Your task to perform on an android device: Empty the shopping cart on costco.com. Search for "usb-b" on costco.com, select the first entry, add it to the cart, then select checkout. Image 0: 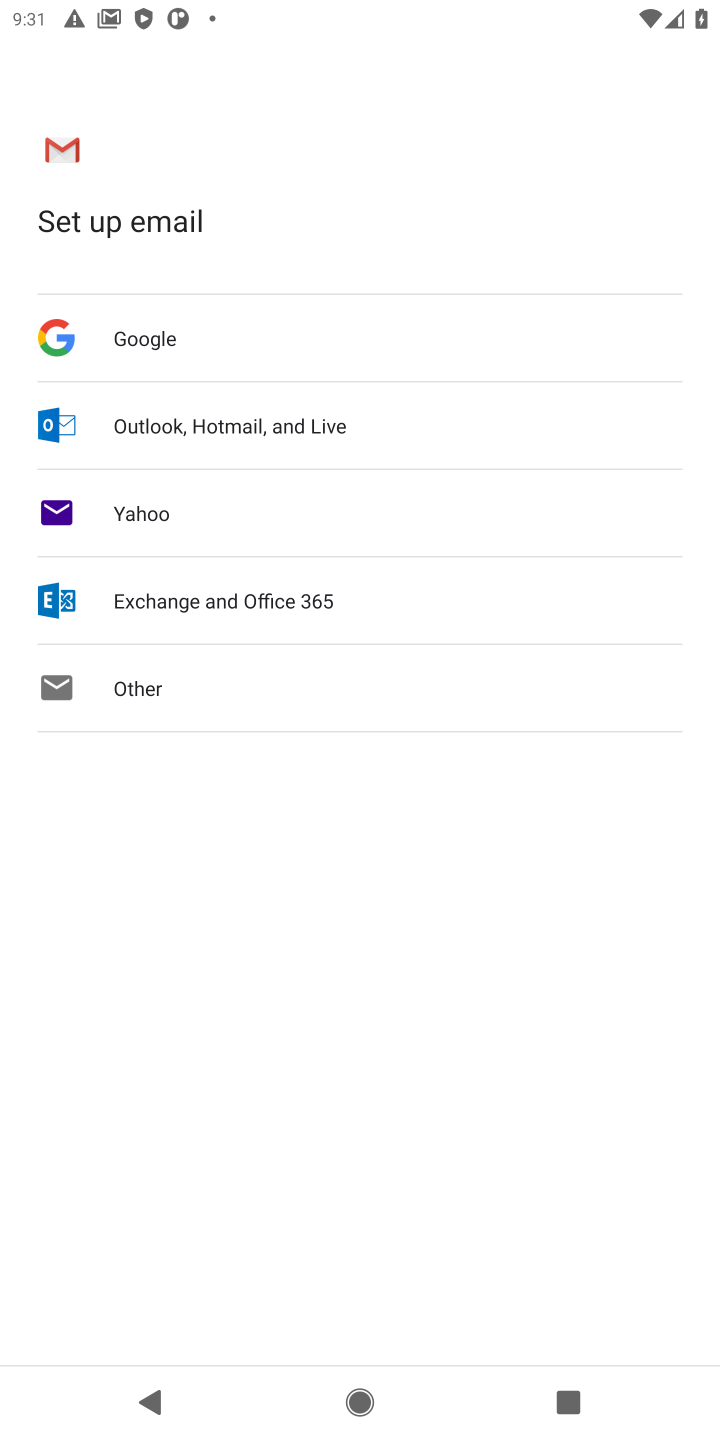
Step 0: press home button
Your task to perform on an android device: Empty the shopping cart on costco.com. Search for "usb-b" on costco.com, select the first entry, add it to the cart, then select checkout. Image 1: 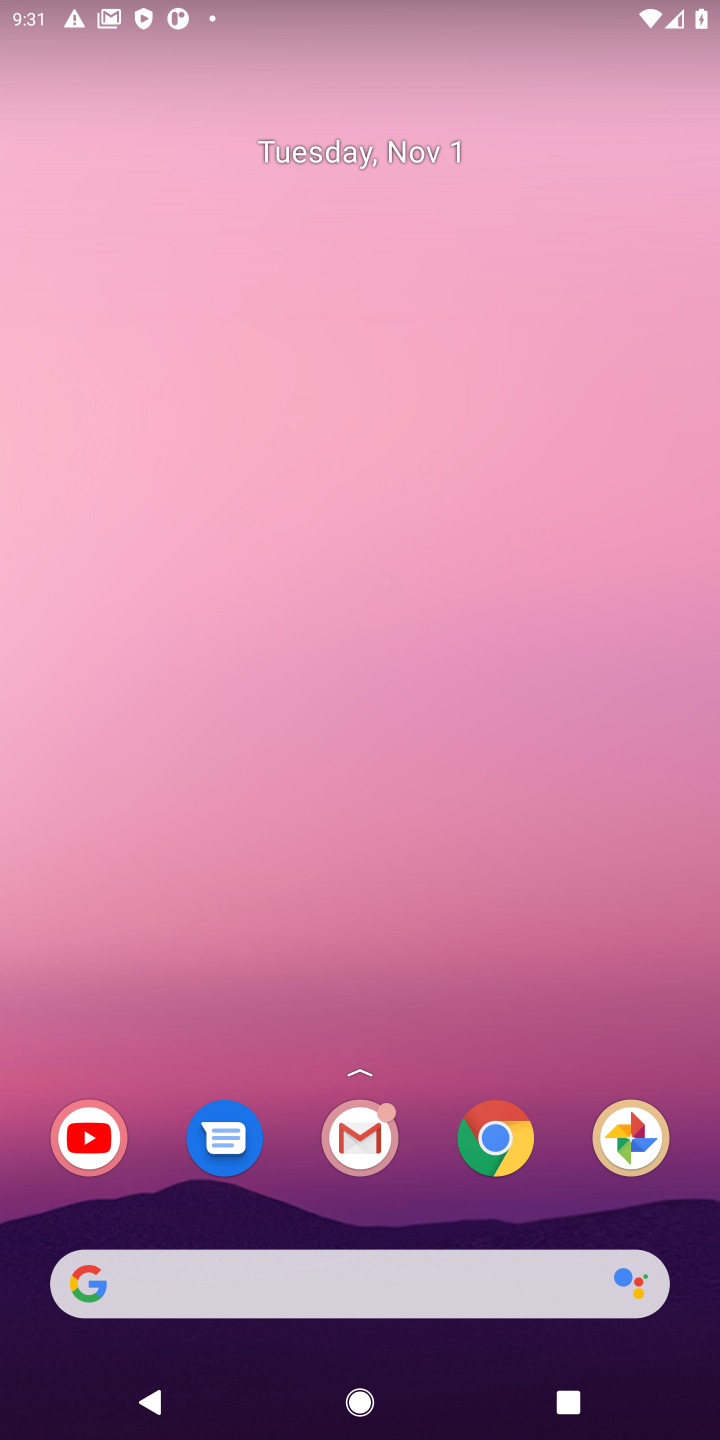
Step 1: click (499, 1144)
Your task to perform on an android device: Empty the shopping cart on costco.com. Search for "usb-b" on costco.com, select the first entry, add it to the cart, then select checkout. Image 2: 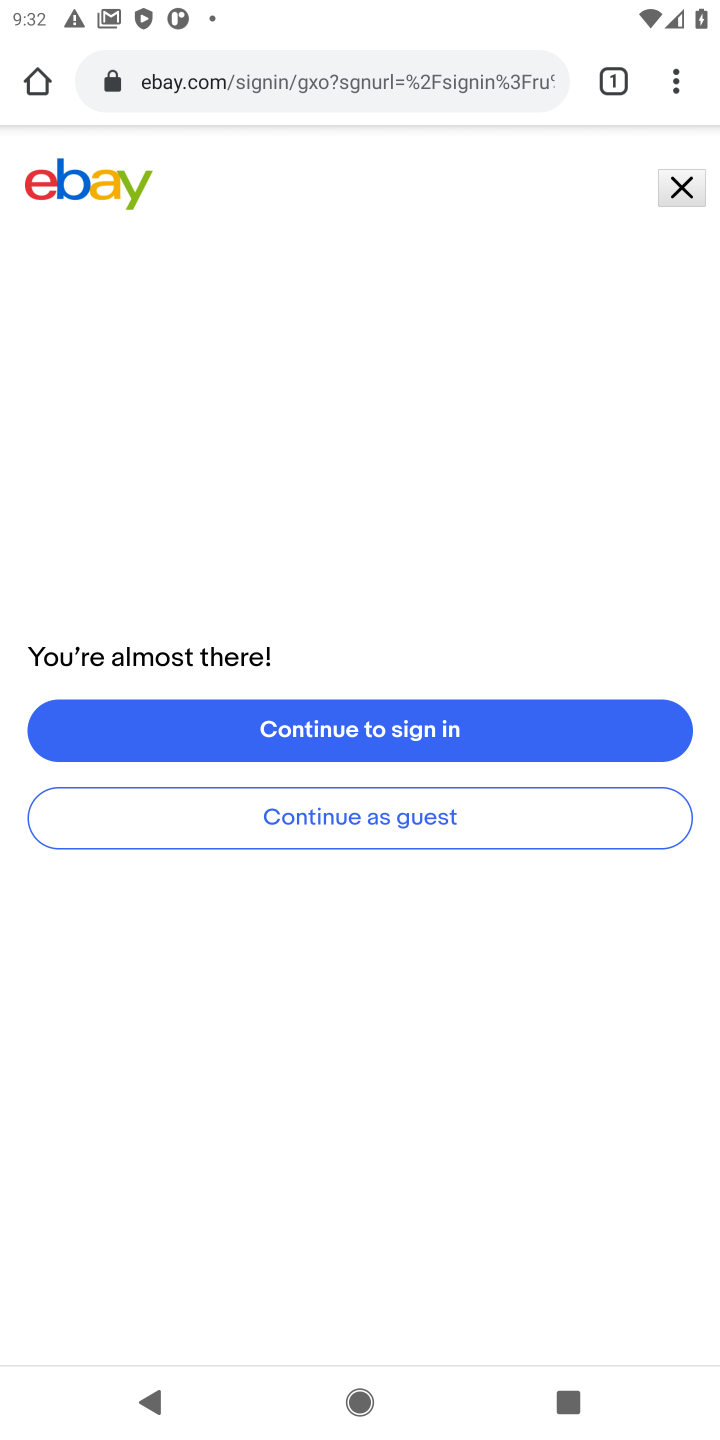
Step 2: click (274, 87)
Your task to perform on an android device: Empty the shopping cart on costco.com. Search for "usb-b" on costco.com, select the first entry, add it to the cart, then select checkout. Image 3: 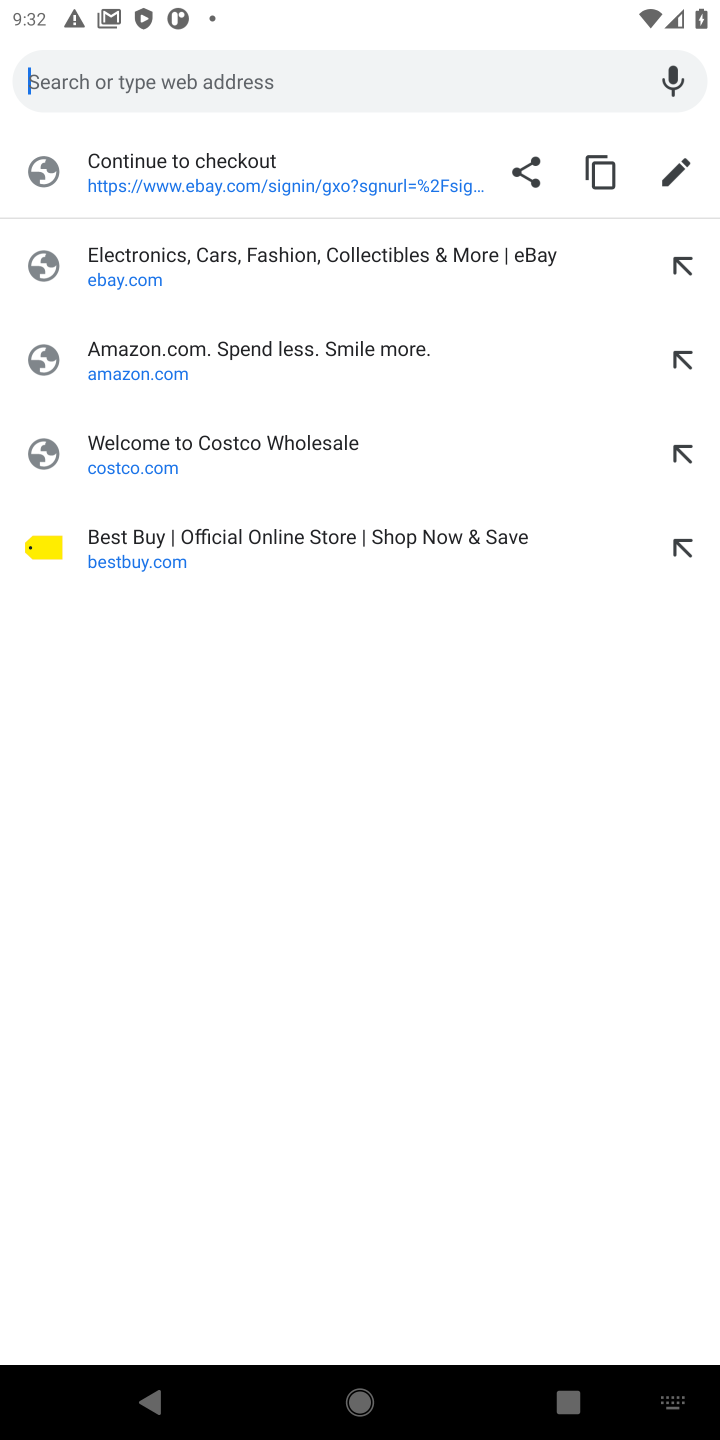
Step 3: type "costco.com"
Your task to perform on an android device: Empty the shopping cart on costco.com. Search for "usb-b" on costco.com, select the first entry, add it to the cart, then select checkout. Image 4: 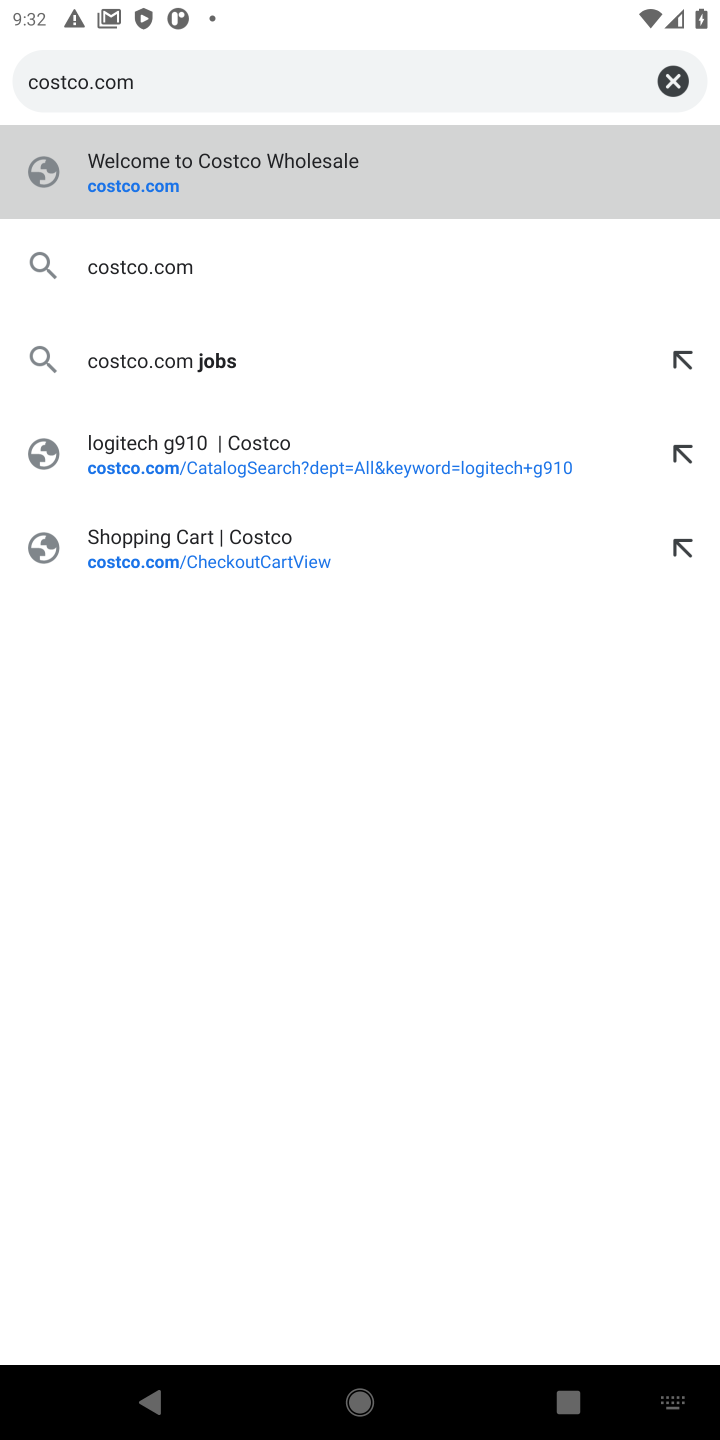
Step 4: click (123, 198)
Your task to perform on an android device: Empty the shopping cart on costco.com. Search for "usb-b" on costco.com, select the first entry, add it to the cart, then select checkout. Image 5: 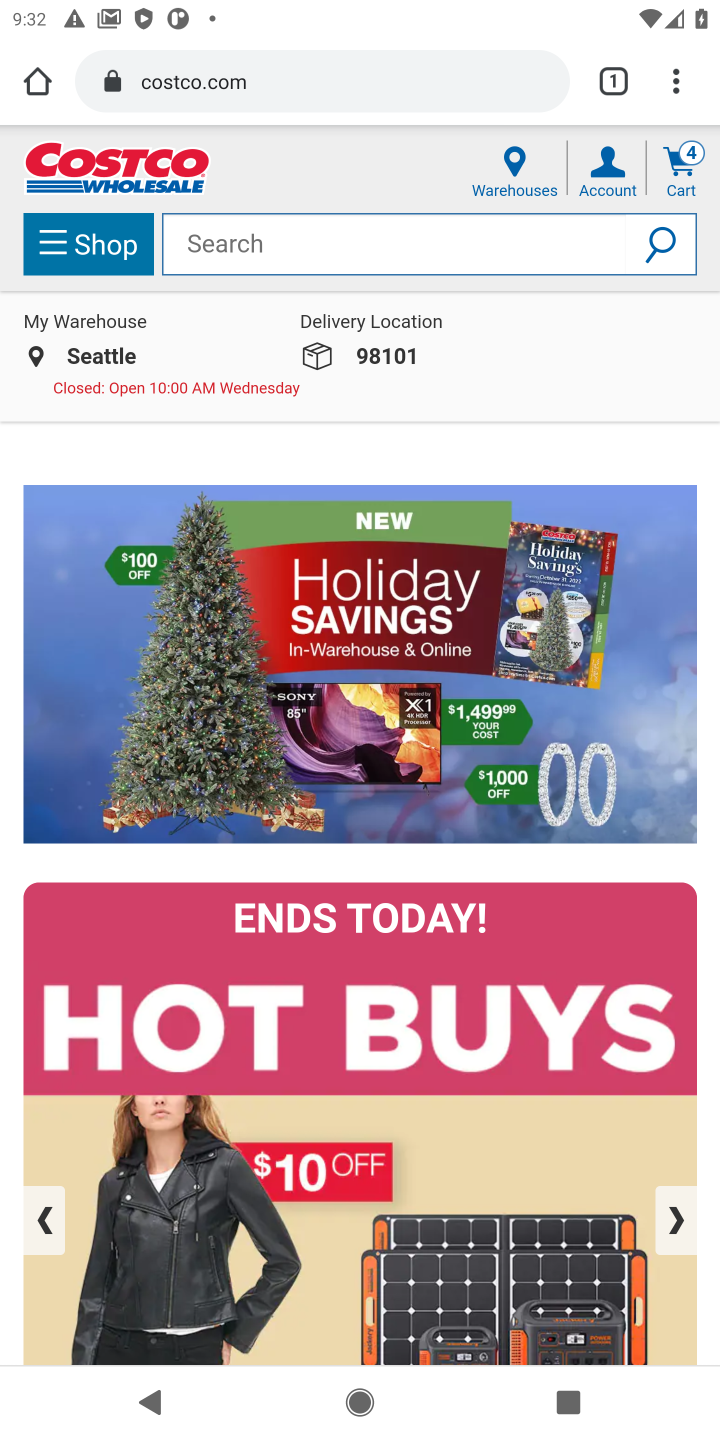
Step 5: click (680, 168)
Your task to perform on an android device: Empty the shopping cart on costco.com. Search for "usb-b" on costco.com, select the first entry, add it to the cart, then select checkout. Image 6: 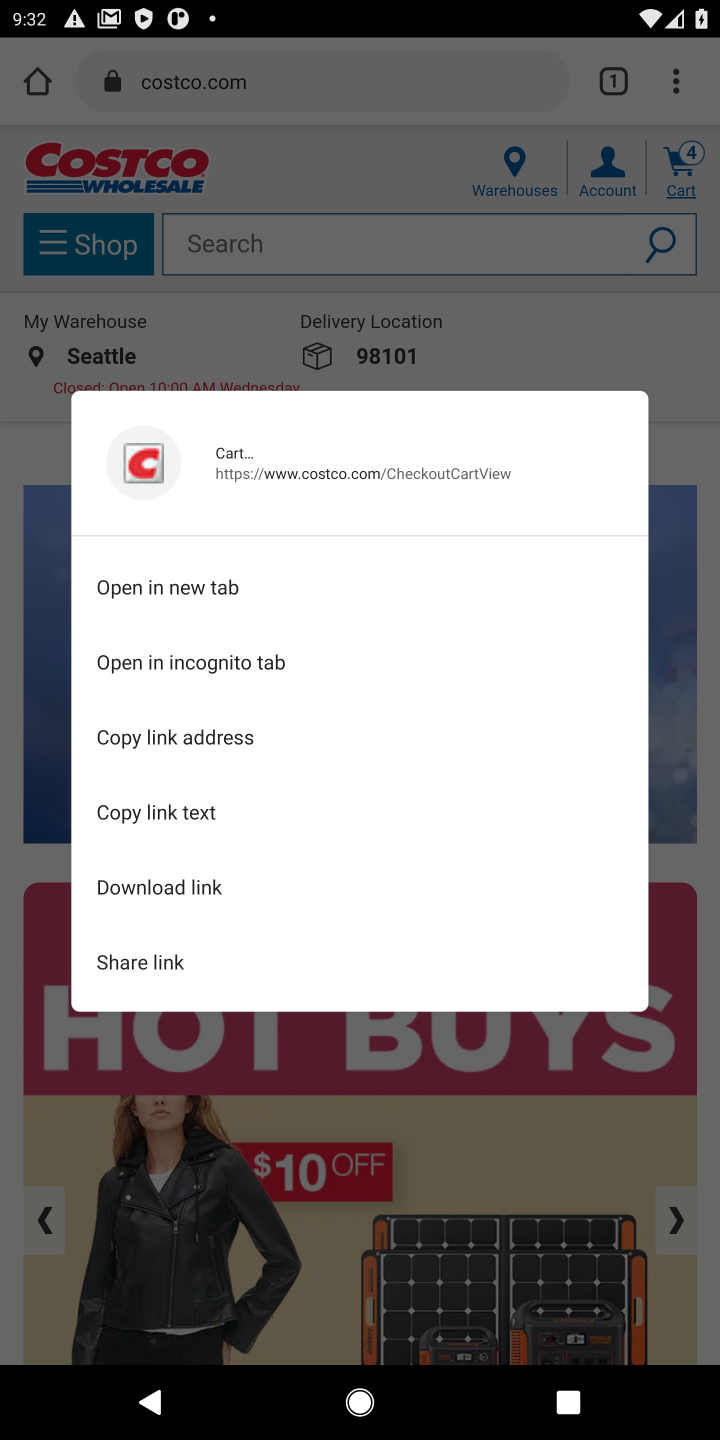
Step 6: click (680, 168)
Your task to perform on an android device: Empty the shopping cart on costco.com. Search for "usb-b" on costco.com, select the first entry, add it to the cart, then select checkout. Image 7: 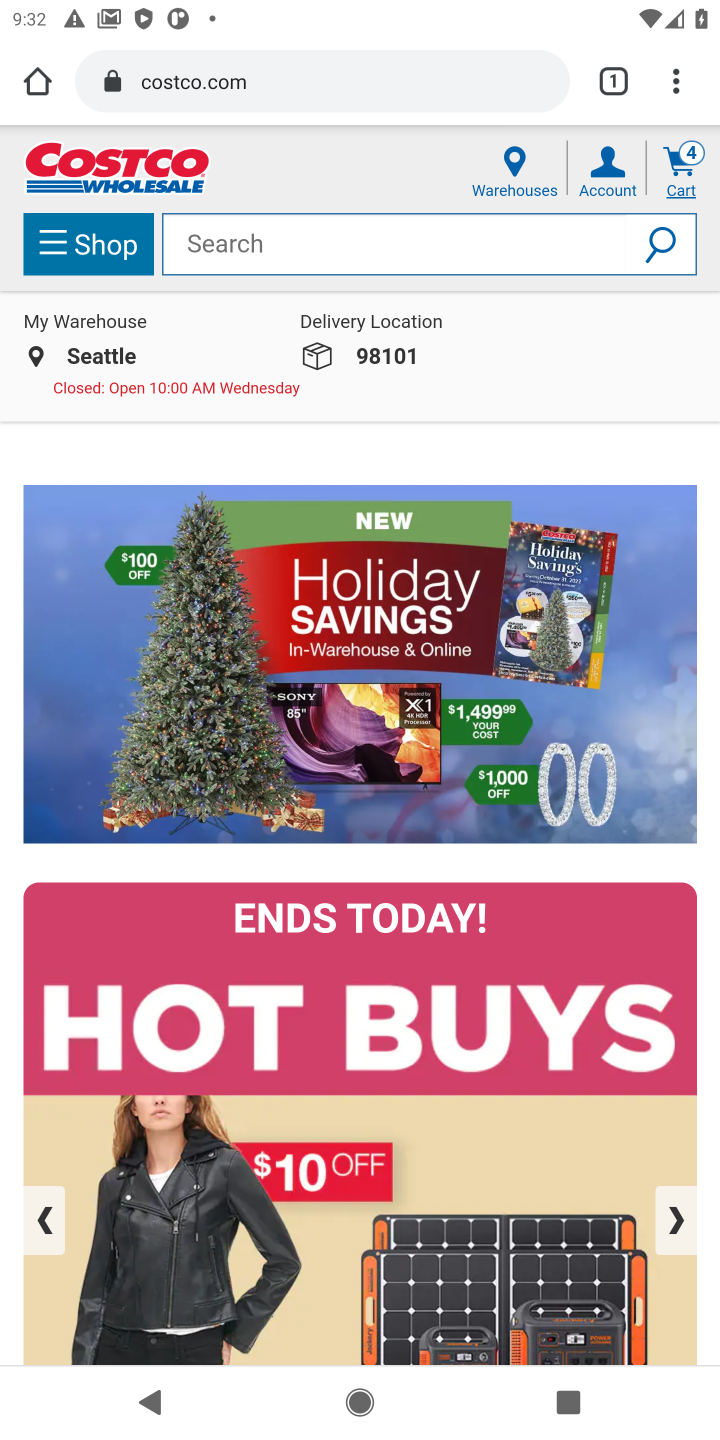
Step 7: click (684, 168)
Your task to perform on an android device: Empty the shopping cart on costco.com. Search for "usb-b" on costco.com, select the first entry, add it to the cart, then select checkout. Image 8: 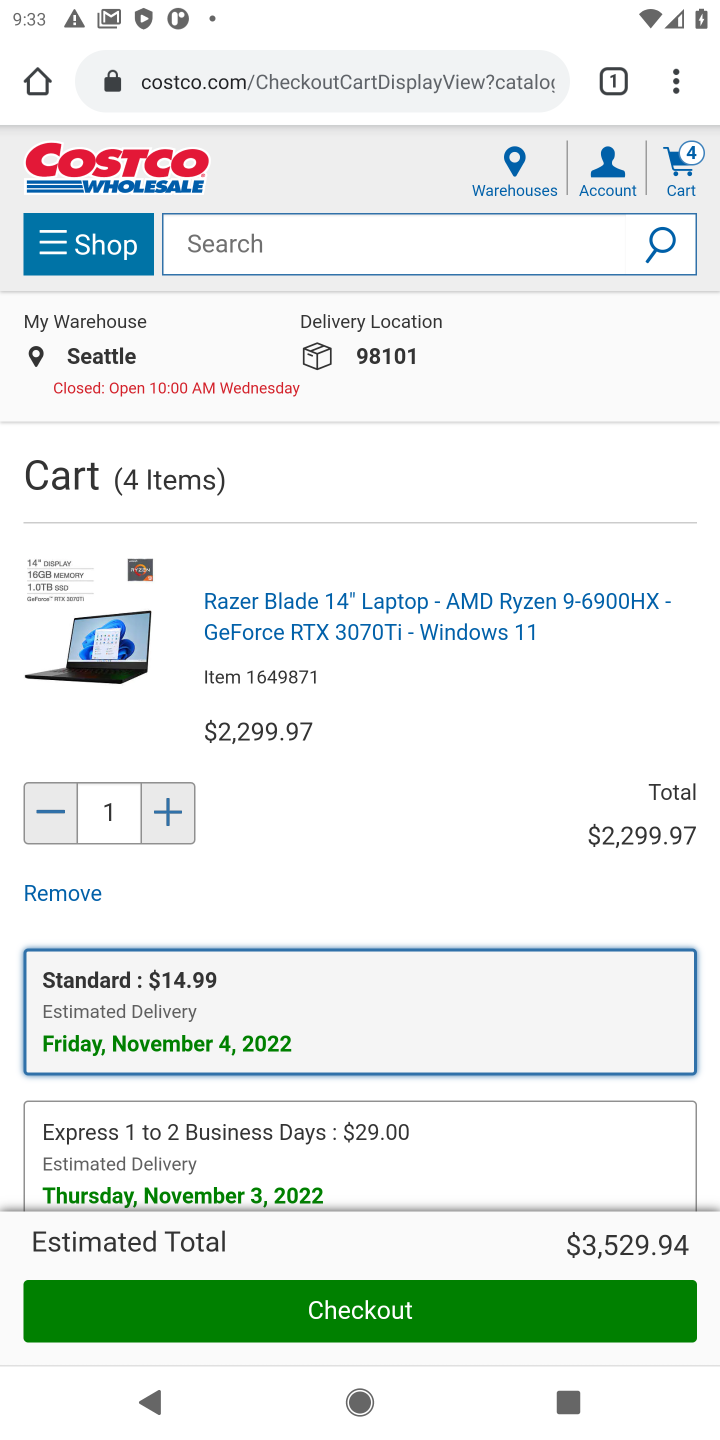
Step 8: click (93, 899)
Your task to perform on an android device: Empty the shopping cart on costco.com. Search for "usb-b" on costco.com, select the first entry, add it to the cart, then select checkout. Image 9: 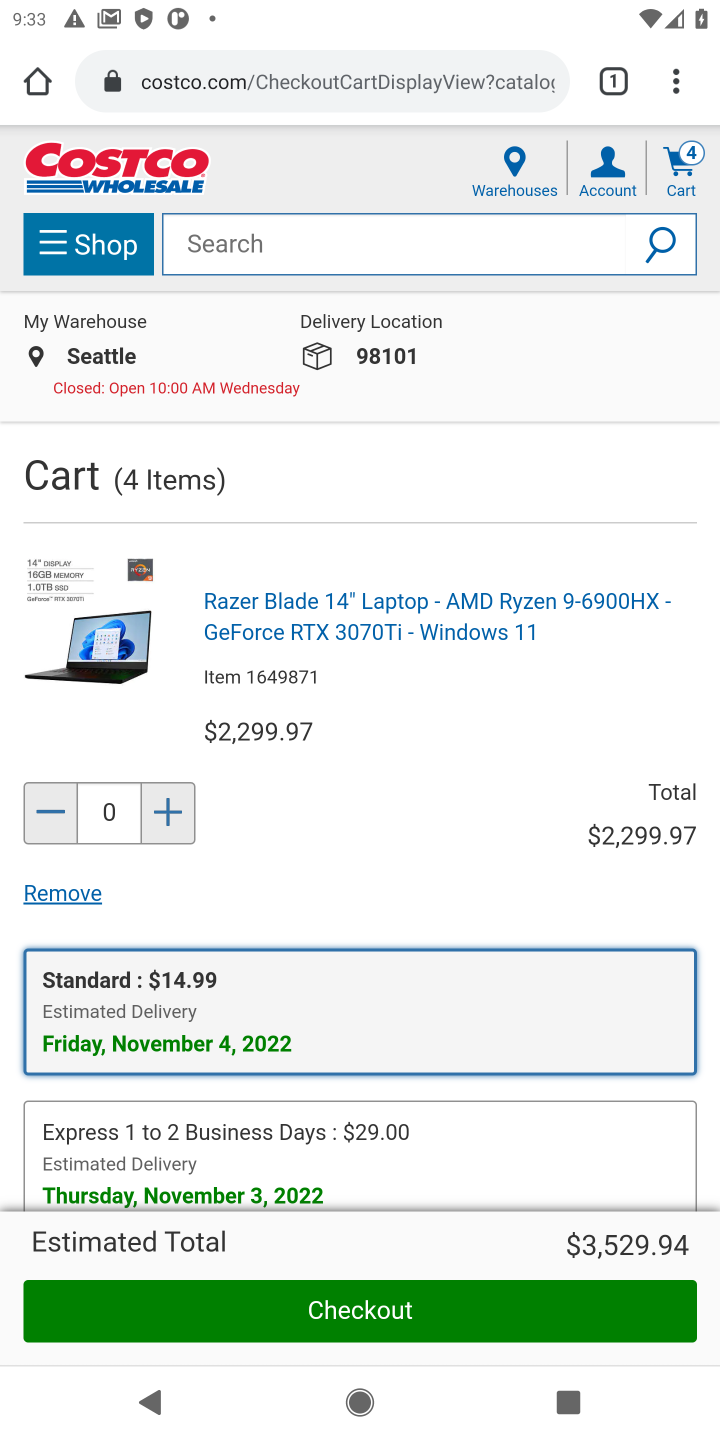
Step 9: click (91, 901)
Your task to perform on an android device: Empty the shopping cart on costco.com. Search for "usb-b" on costco.com, select the first entry, add it to the cart, then select checkout. Image 10: 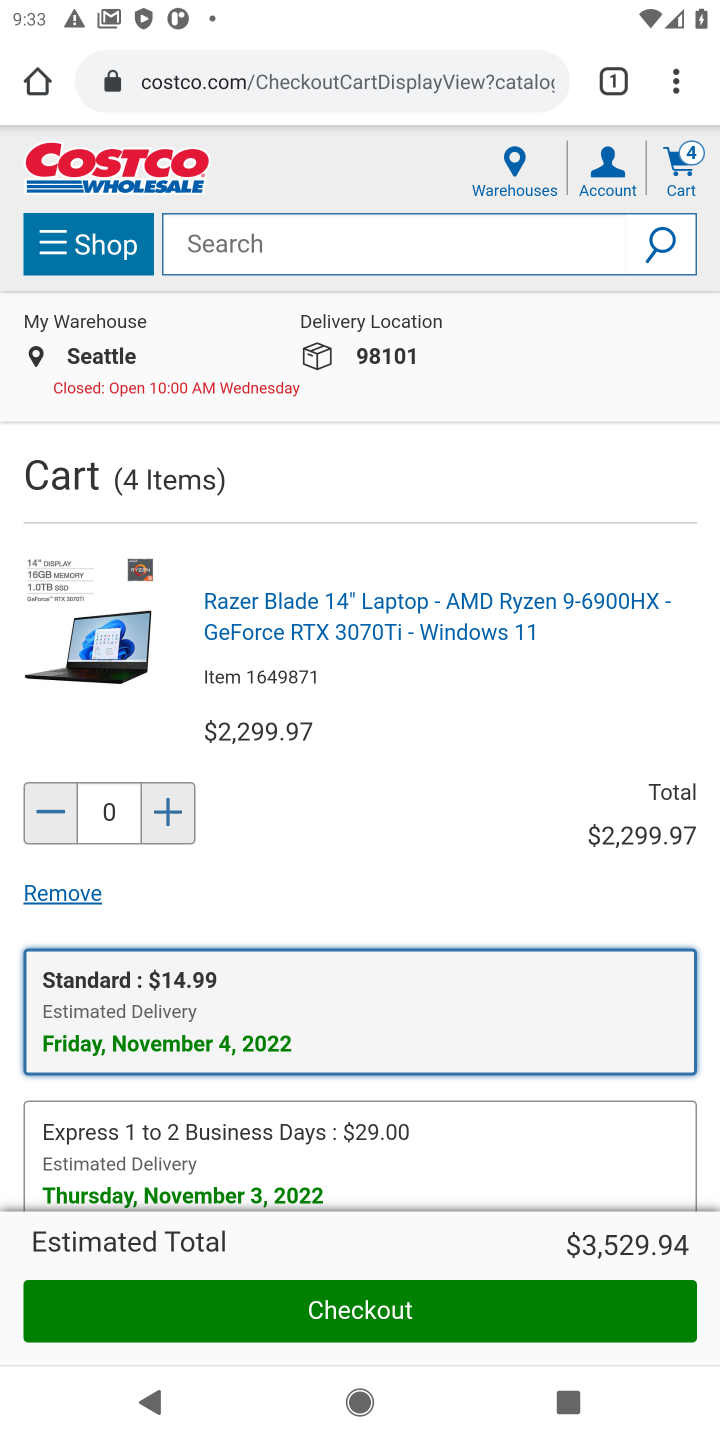
Step 10: click (62, 900)
Your task to perform on an android device: Empty the shopping cart on costco.com. Search for "usb-b" on costco.com, select the first entry, add it to the cart, then select checkout. Image 11: 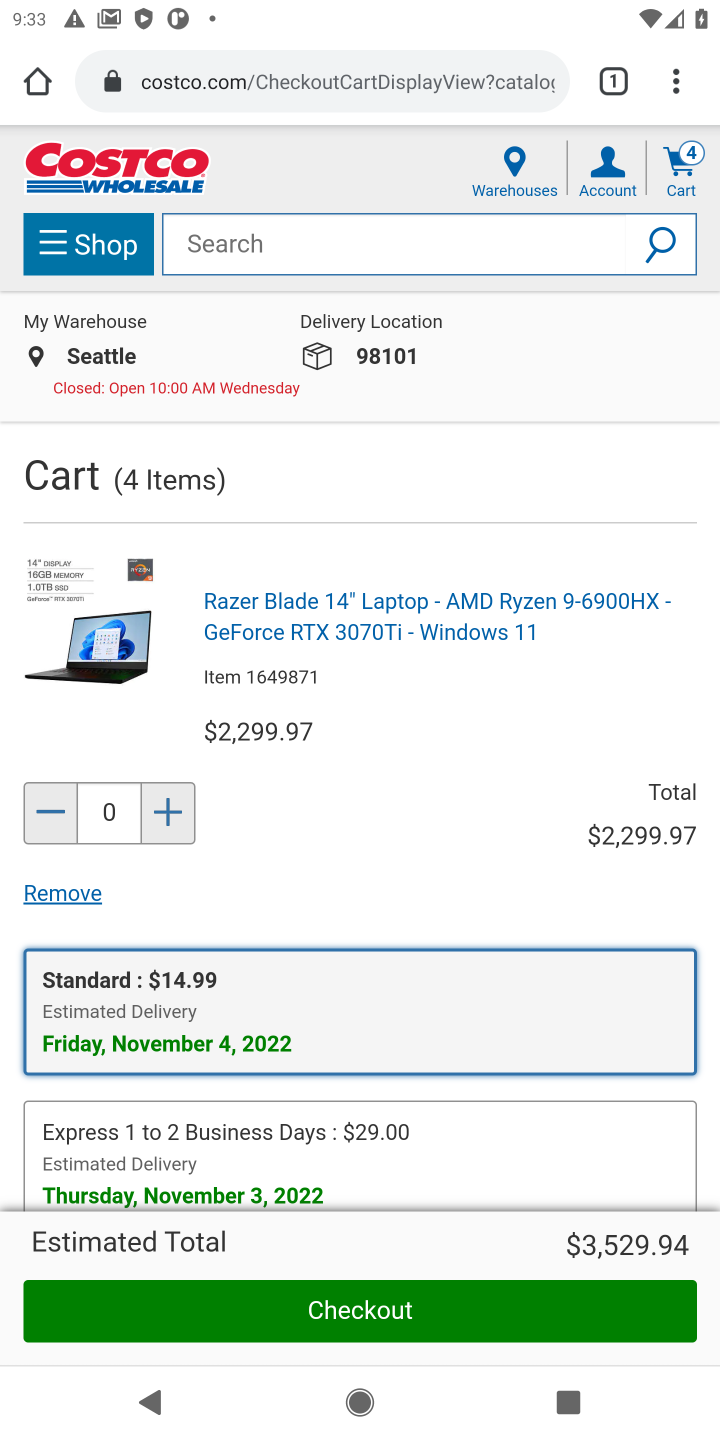
Step 11: click (289, 825)
Your task to perform on an android device: Empty the shopping cart on costco.com. Search for "usb-b" on costco.com, select the first entry, add it to the cart, then select checkout. Image 12: 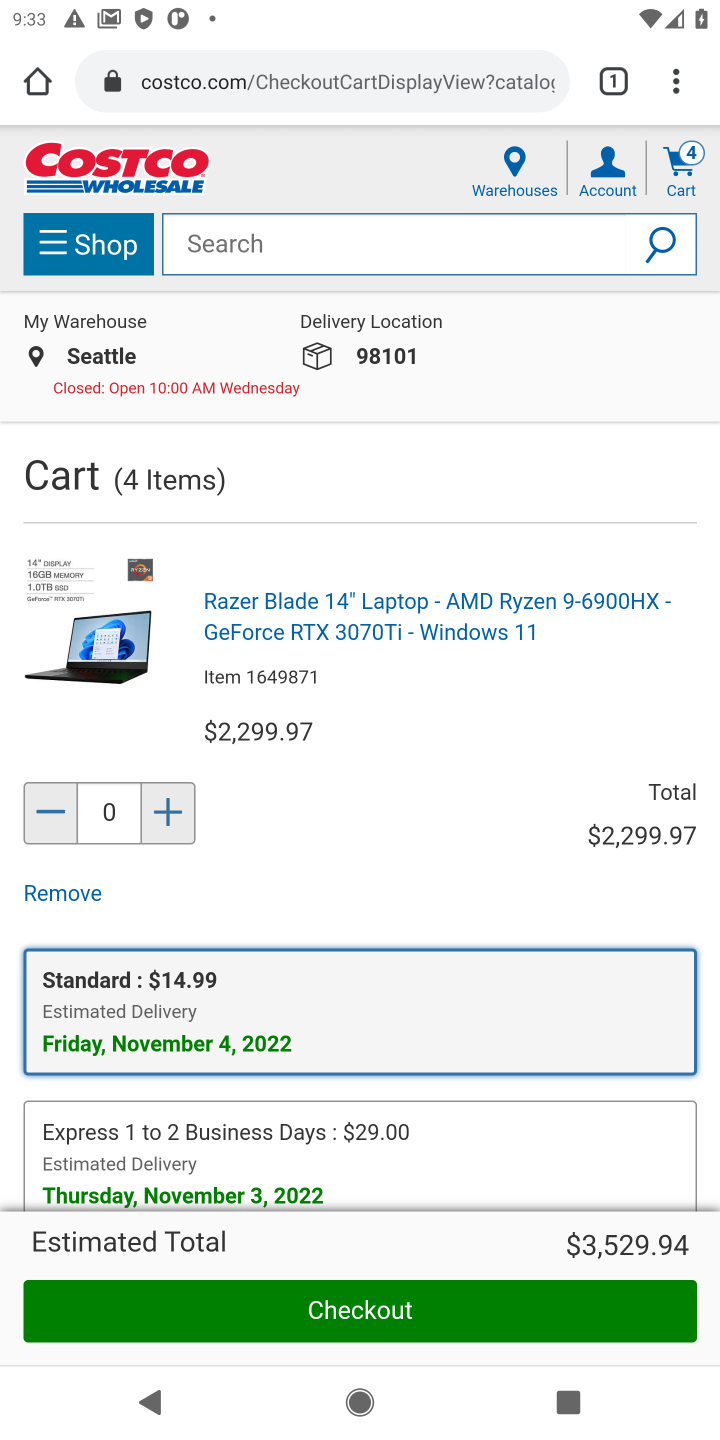
Step 12: click (45, 907)
Your task to perform on an android device: Empty the shopping cart on costco.com. Search for "usb-b" on costco.com, select the first entry, add it to the cart, then select checkout. Image 13: 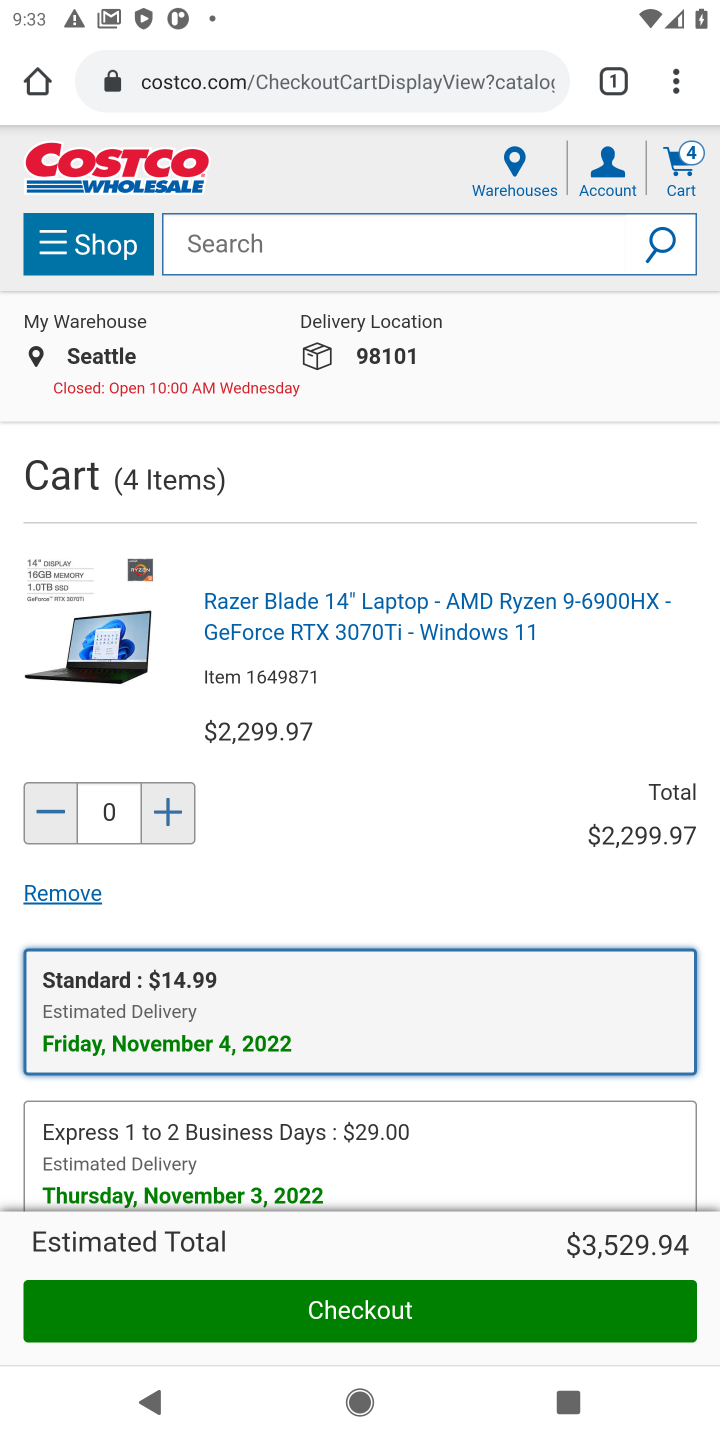
Step 13: drag from (337, 917) to (338, 495)
Your task to perform on an android device: Empty the shopping cart on costco.com. Search for "usb-b" on costco.com, select the first entry, add it to the cart, then select checkout. Image 14: 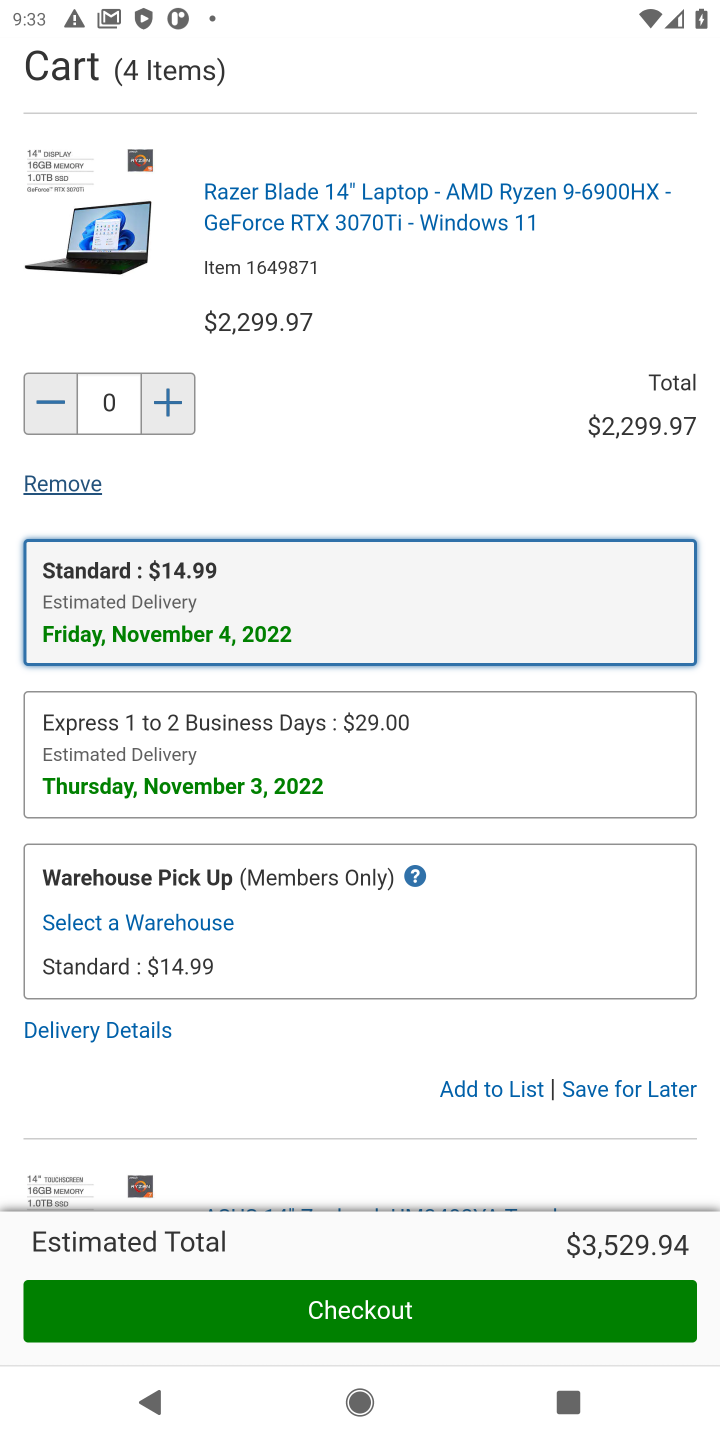
Step 14: click (45, 490)
Your task to perform on an android device: Empty the shopping cart on costco.com. Search for "usb-b" on costco.com, select the first entry, add it to the cart, then select checkout. Image 15: 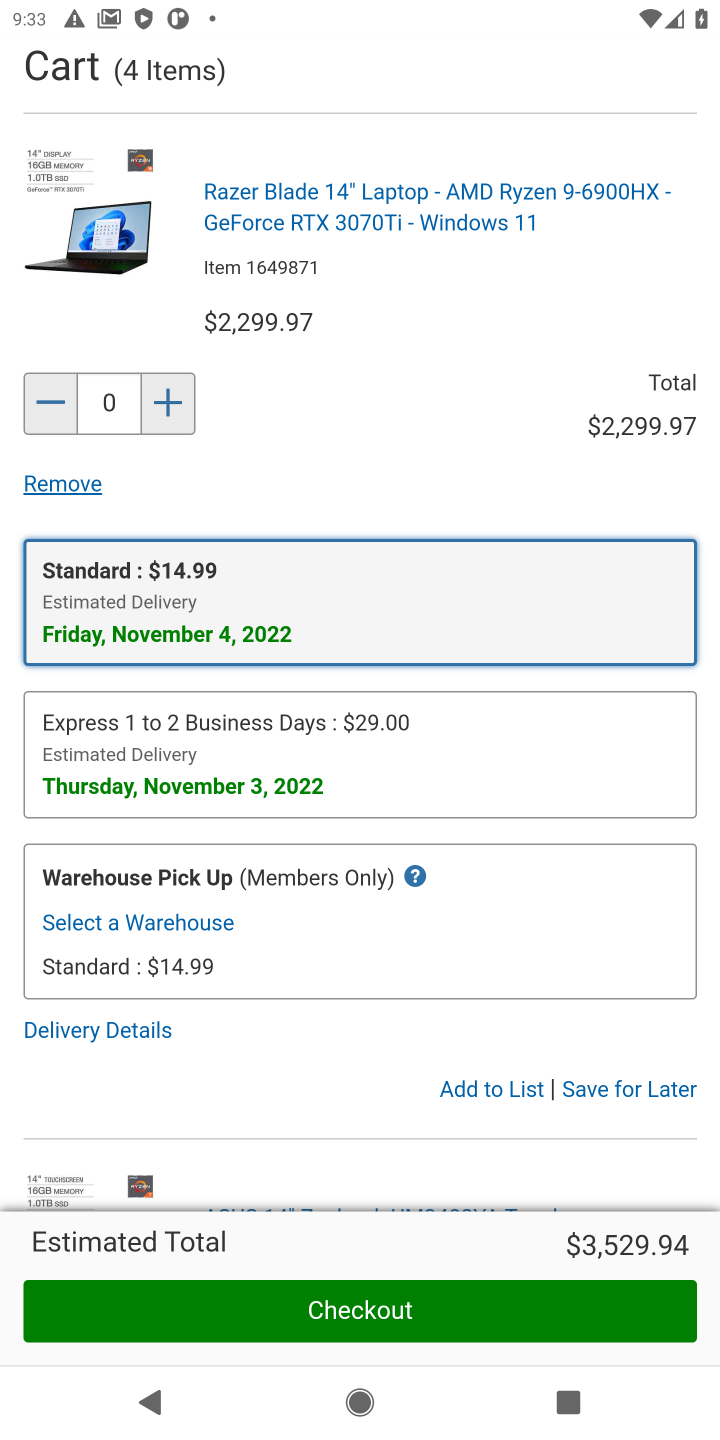
Step 15: click (61, 505)
Your task to perform on an android device: Empty the shopping cart on costco.com. Search for "usb-b" on costco.com, select the first entry, add it to the cart, then select checkout. Image 16: 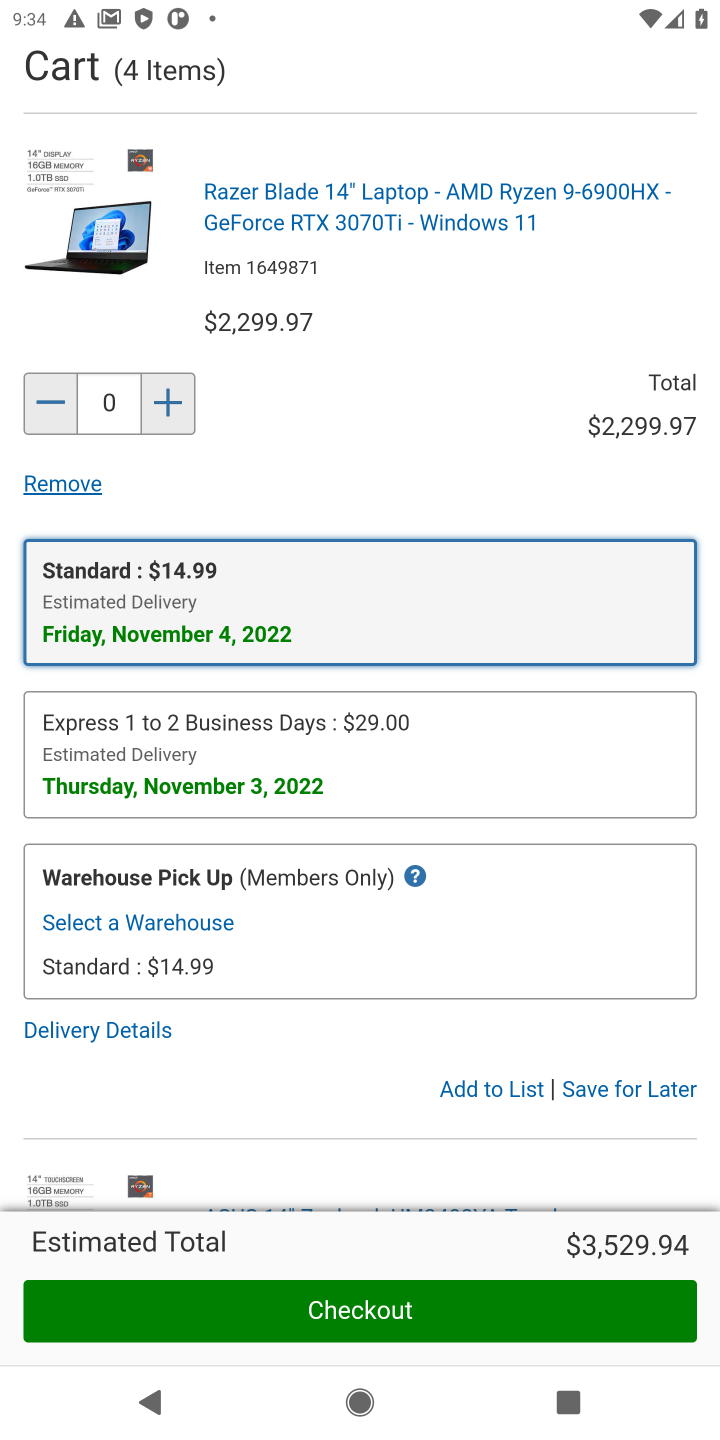
Step 16: click (61, 495)
Your task to perform on an android device: Empty the shopping cart on costco.com. Search for "usb-b" on costco.com, select the first entry, add it to the cart, then select checkout. Image 17: 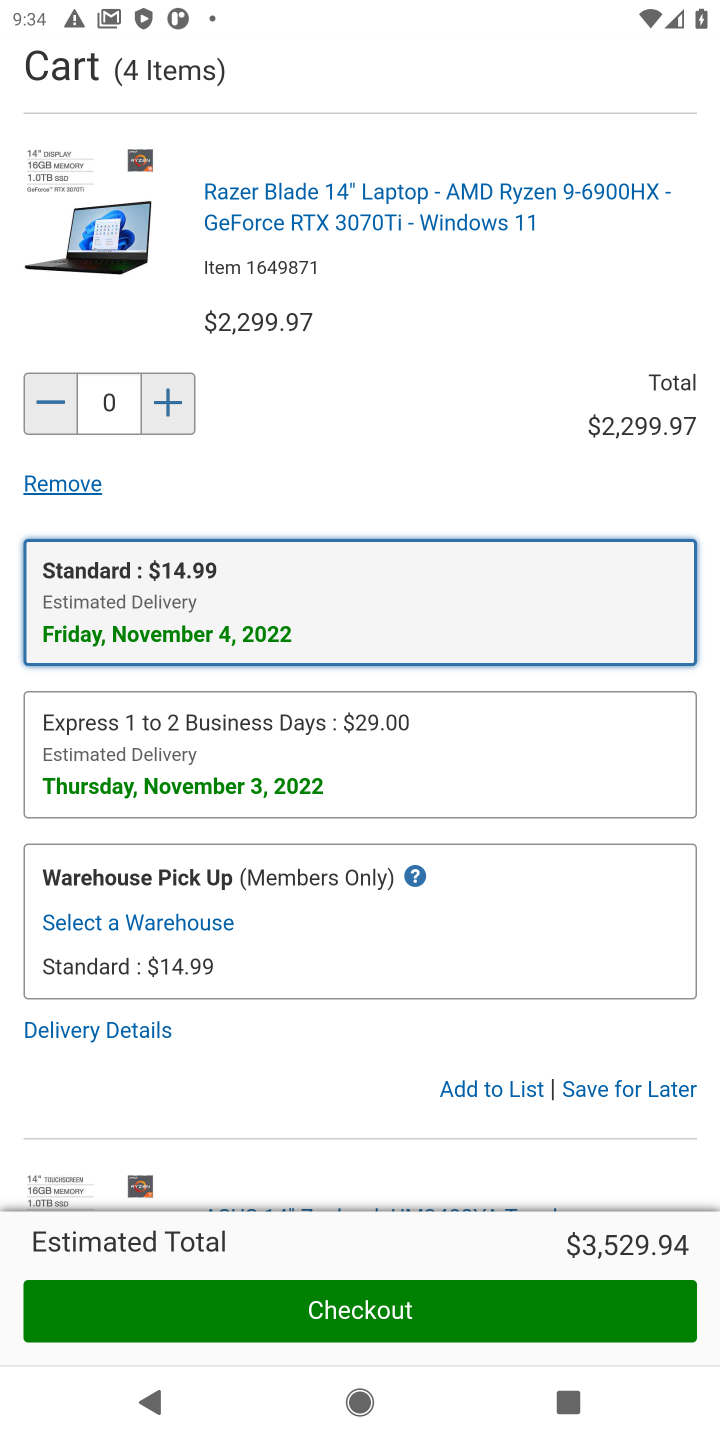
Step 17: drag from (336, 465) to (300, 865)
Your task to perform on an android device: Empty the shopping cart on costco.com. Search for "usb-b" on costco.com, select the first entry, add it to the cart, then select checkout. Image 18: 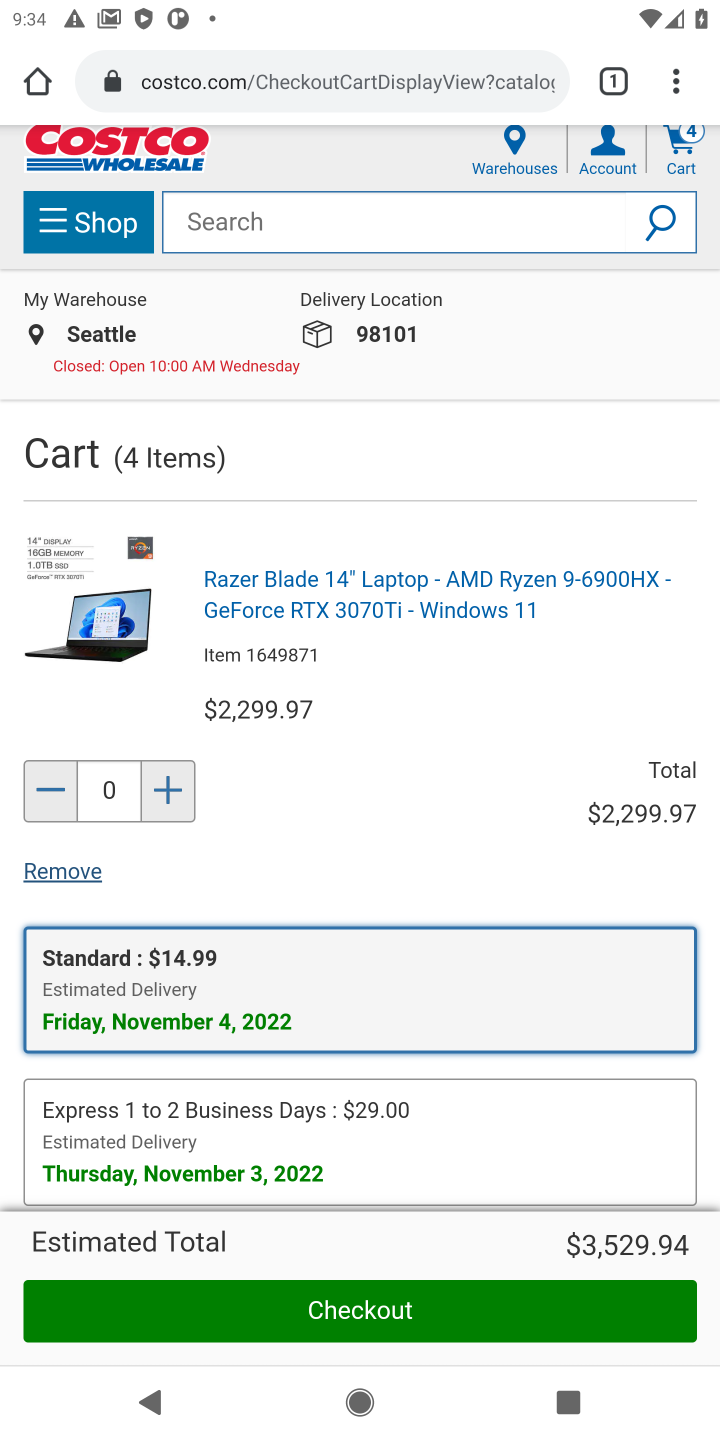
Step 18: click (147, 148)
Your task to perform on an android device: Empty the shopping cart on costco.com. Search for "usb-b" on costco.com, select the first entry, add it to the cart, then select checkout. Image 19: 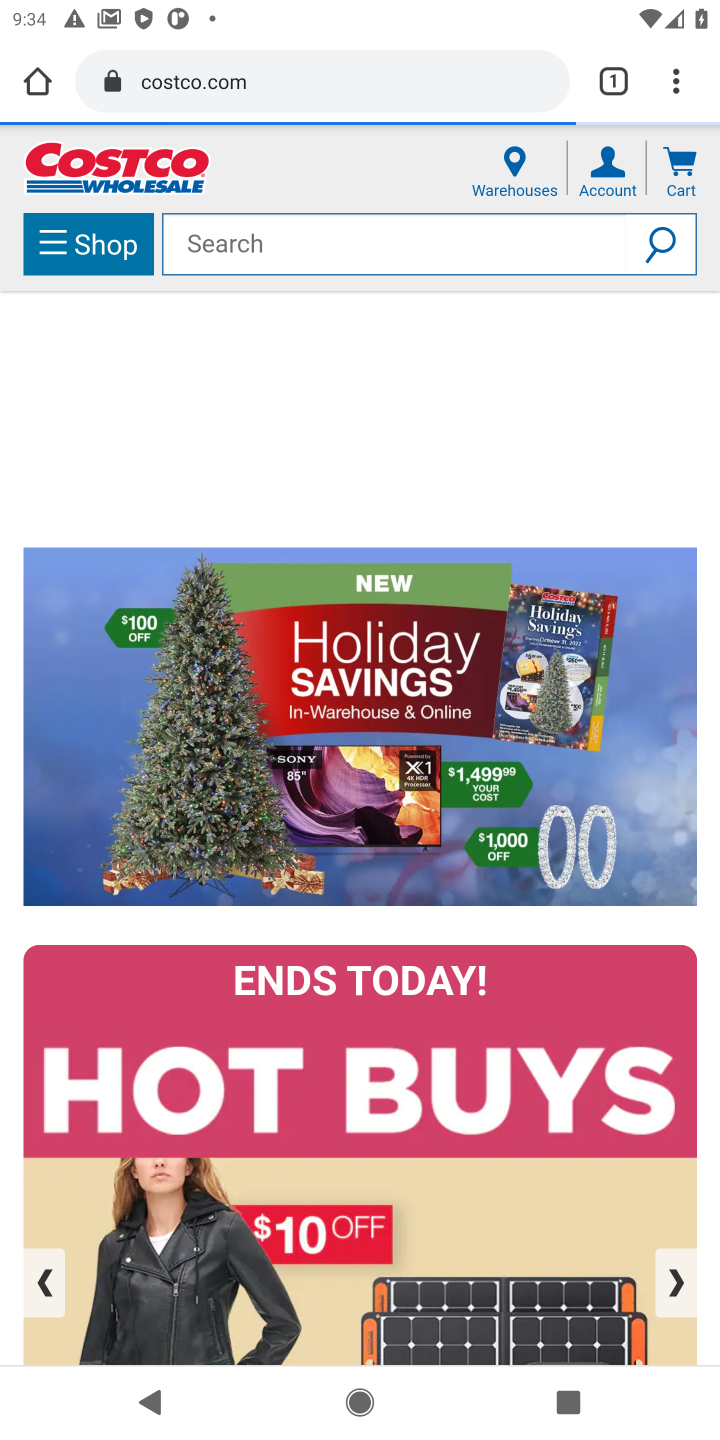
Step 19: click (696, 156)
Your task to perform on an android device: Empty the shopping cart on costco.com. Search for "usb-b" on costco.com, select the first entry, add it to the cart, then select checkout. Image 20: 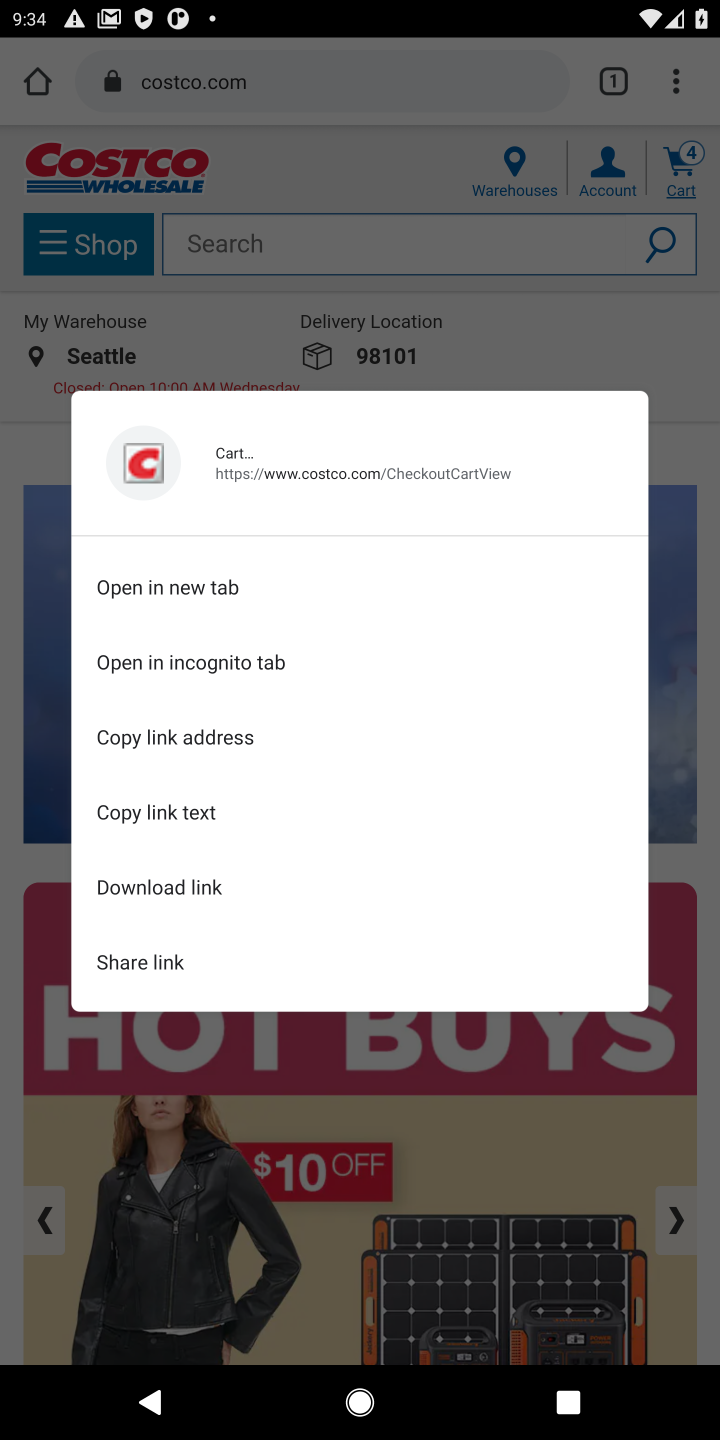
Step 20: click (674, 173)
Your task to perform on an android device: Empty the shopping cart on costco.com. Search for "usb-b" on costco.com, select the first entry, add it to the cart, then select checkout. Image 21: 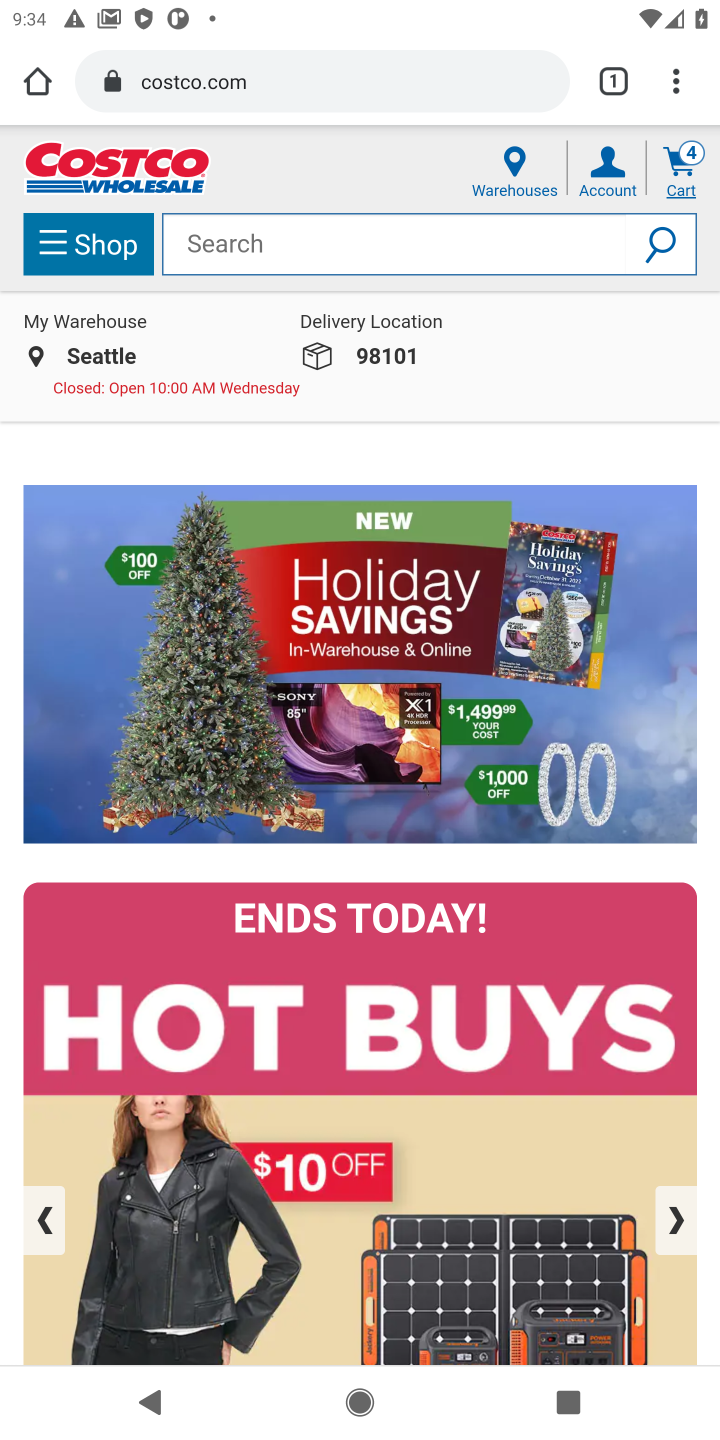
Step 21: click (679, 167)
Your task to perform on an android device: Empty the shopping cart on costco.com. Search for "usb-b" on costco.com, select the first entry, add it to the cart, then select checkout. Image 22: 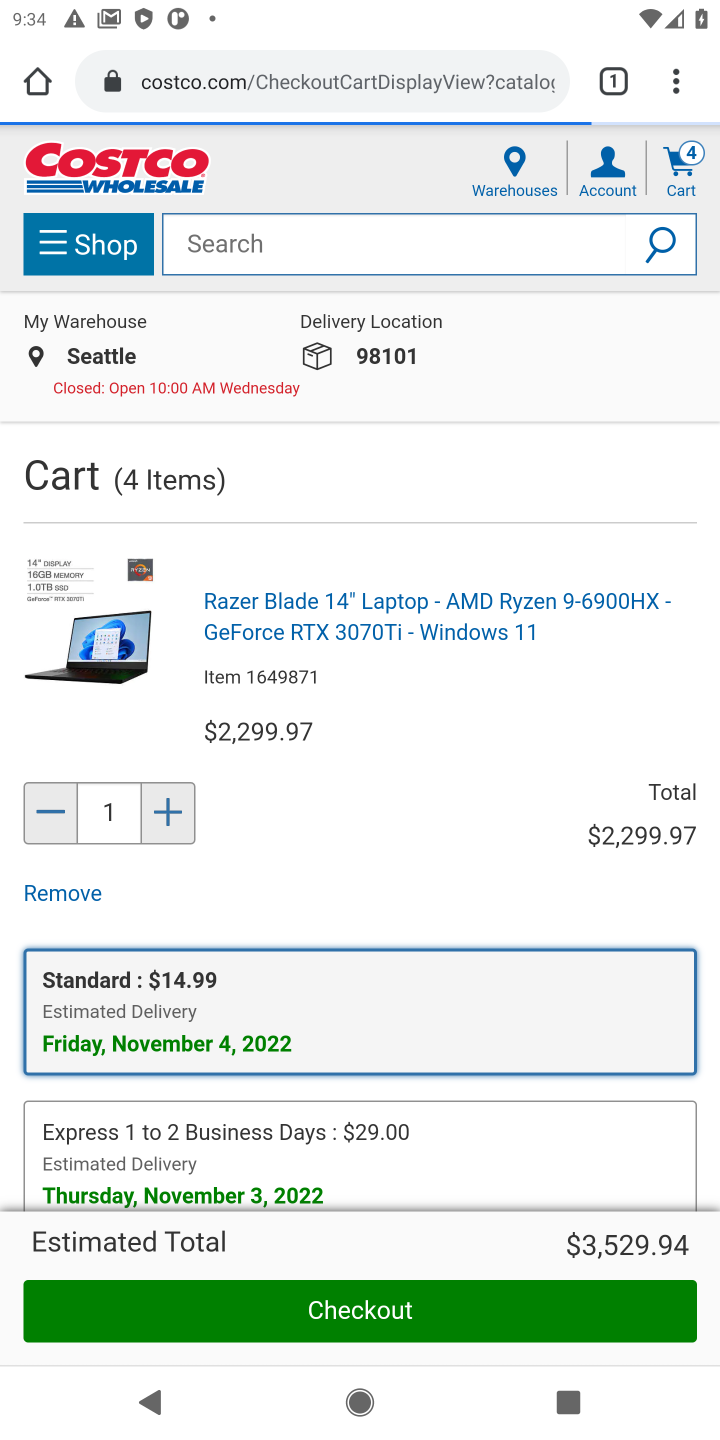
Step 22: click (62, 891)
Your task to perform on an android device: Empty the shopping cart on costco.com. Search for "usb-b" on costco.com, select the first entry, add it to the cart, then select checkout. Image 23: 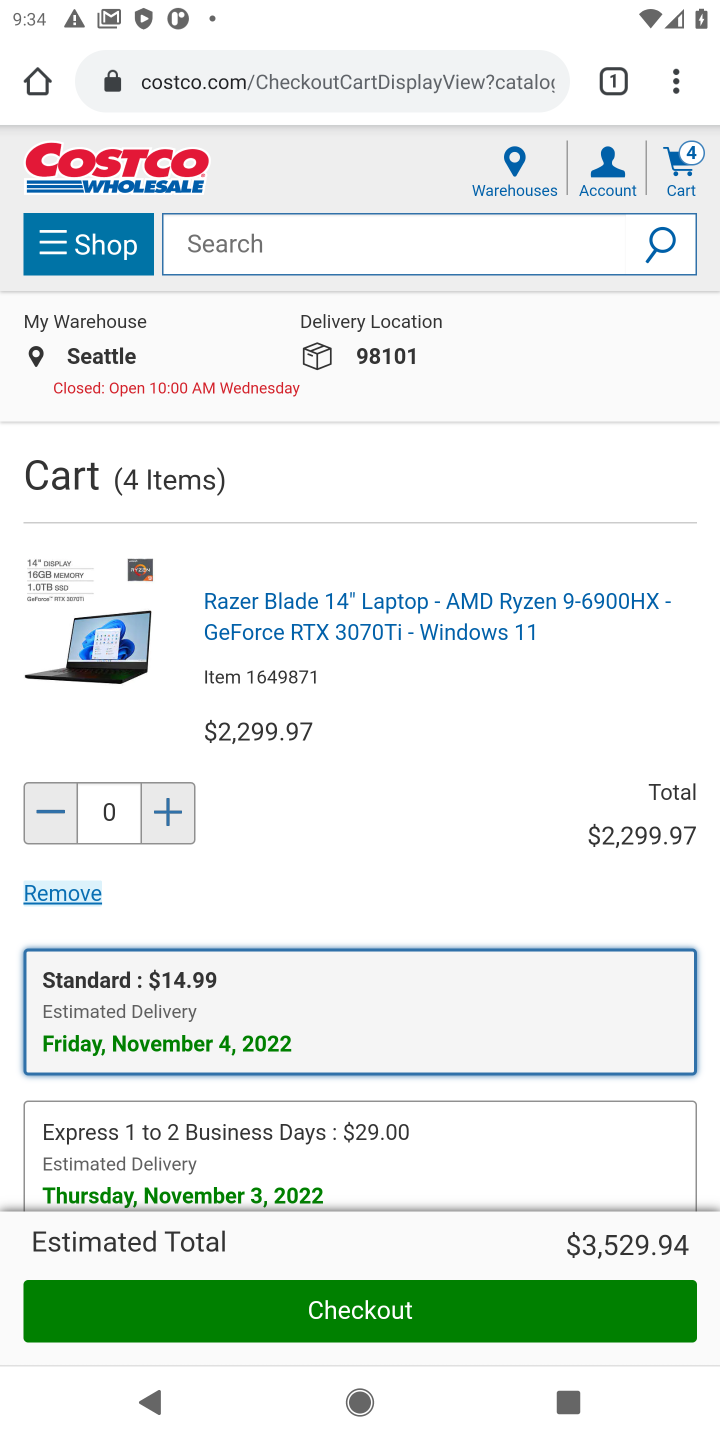
Step 23: click (53, 894)
Your task to perform on an android device: Empty the shopping cart on costco.com. Search for "usb-b" on costco.com, select the first entry, add it to the cart, then select checkout. Image 24: 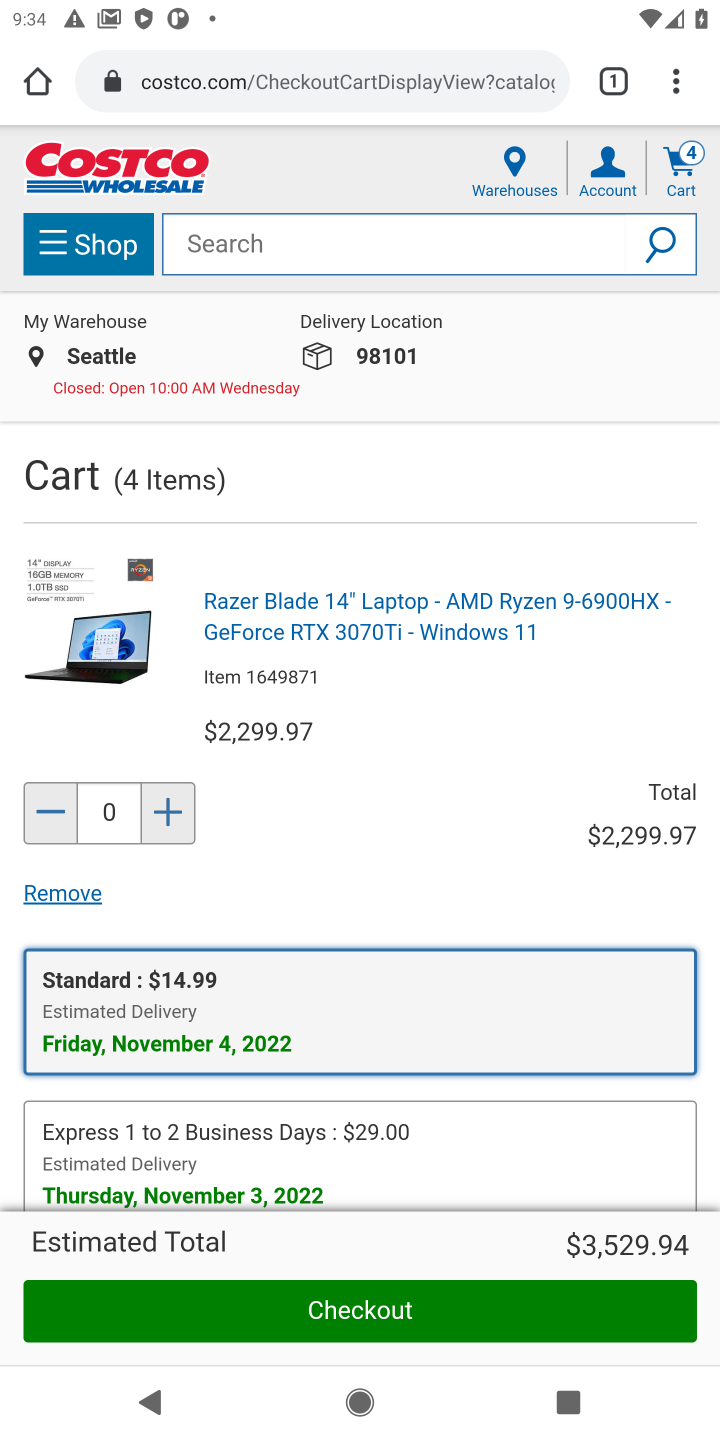
Step 24: click (52, 896)
Your task to perform on an android device: Empty the shopping cart on costco.com. Search for "usb-b" on costco.com, select the first entry, add it to the cart, then select checkout. Image 25: 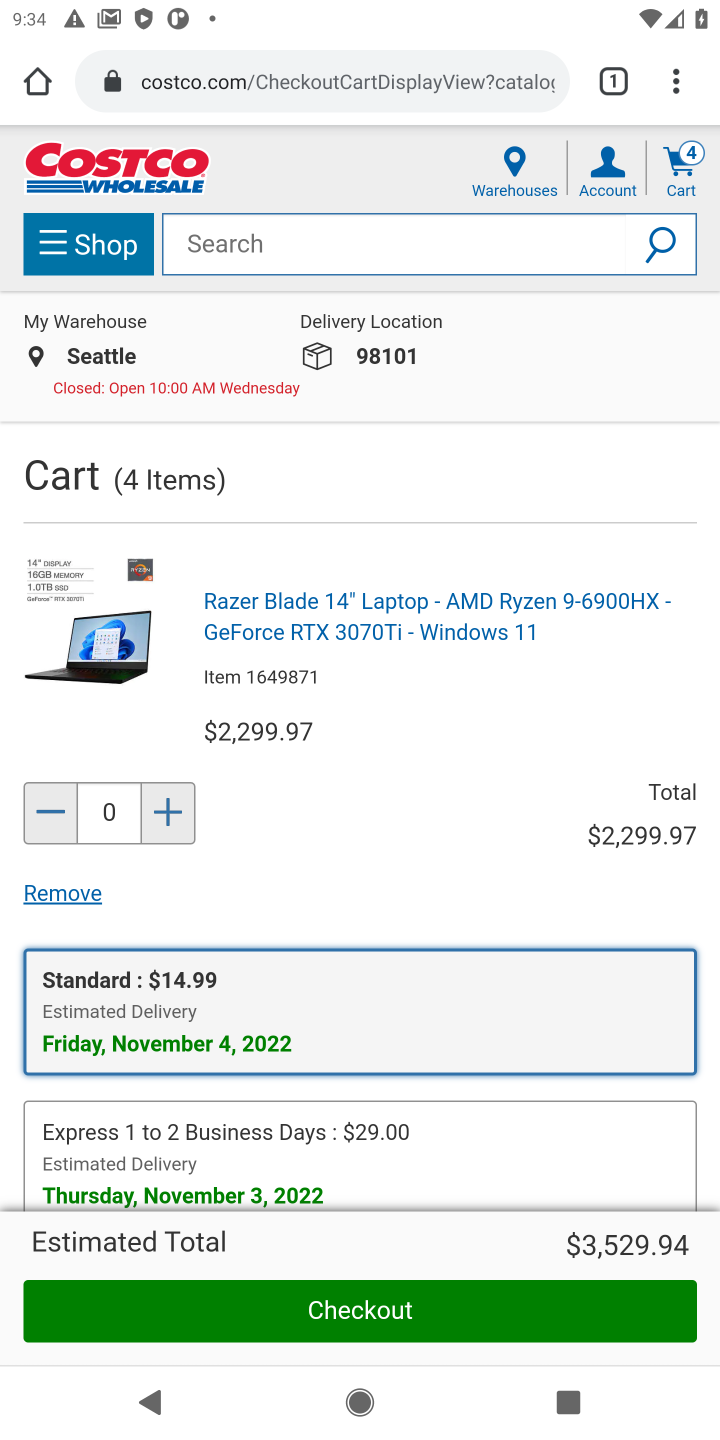
Step 25: click (52, 896)
Your task to perform on an android device: Empty the shopping cart on costco.com. Search for "usb-b" on costco.com, select the first entry, add it to the cart, then select checkout. Image 26: 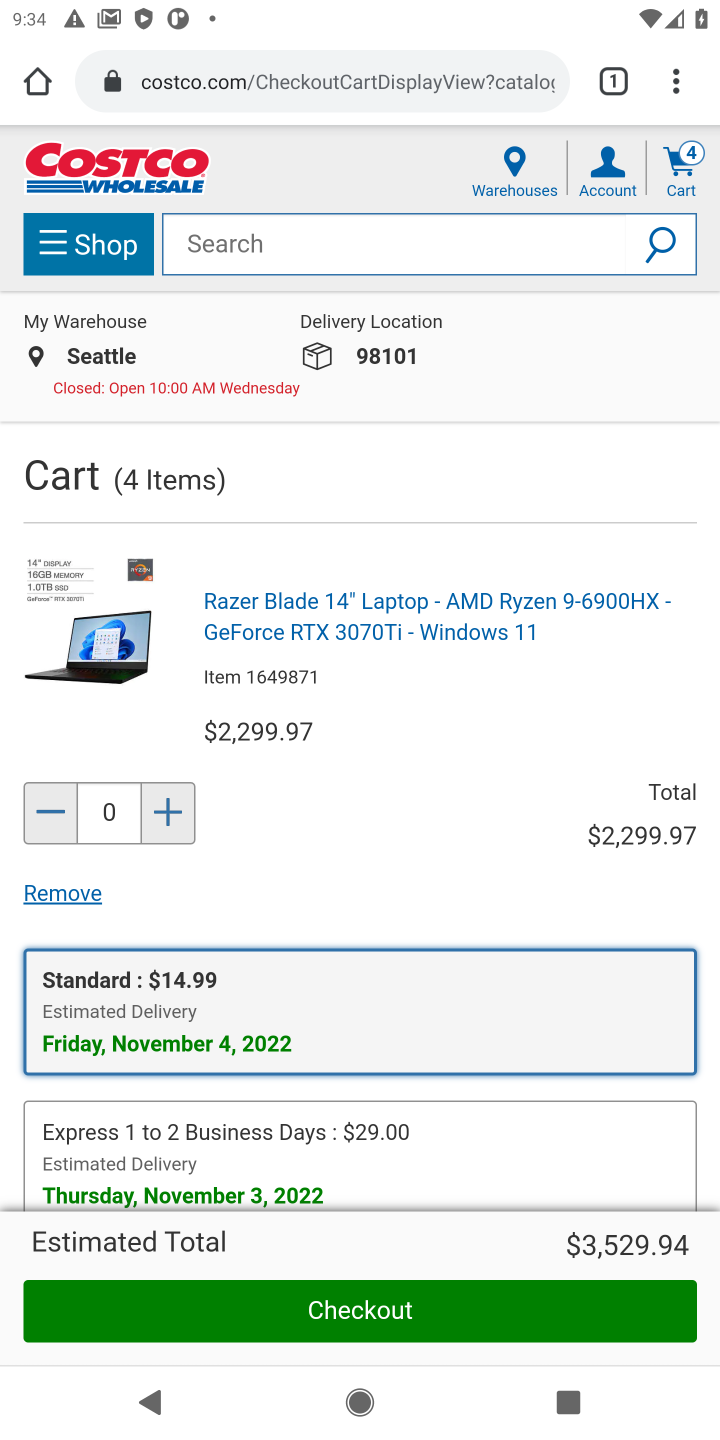
Step 26: task complete